Your task to perform on an android device: turn on data saver in the chrome app Image 0: 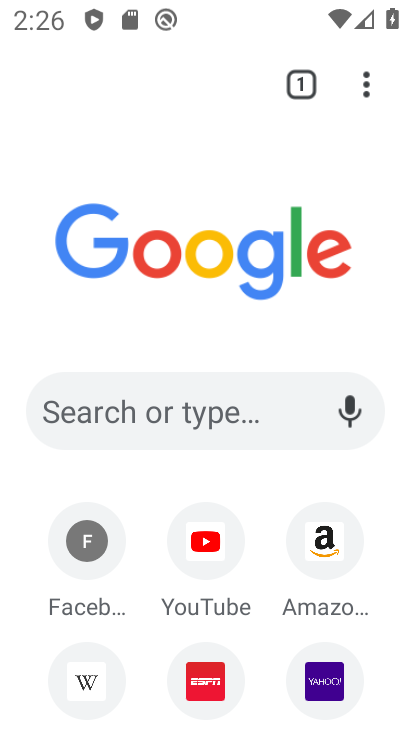
Step 0: click (371, 88)
Your task to perform on an android device: turn on data saver in the chrome app Image 1: 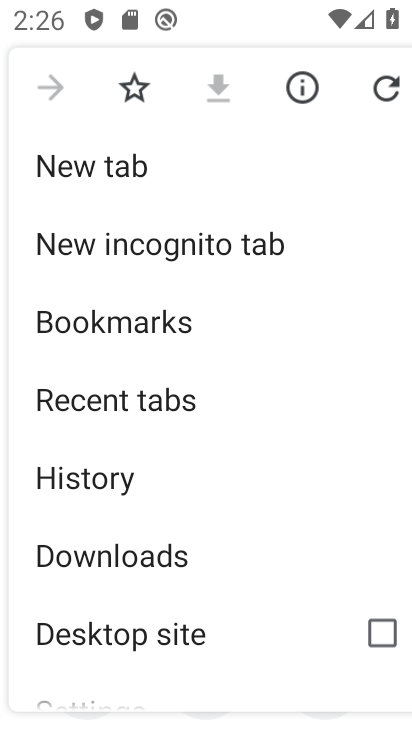
Step 1: drag from (265, 498) to (287, 47)
Your task to perform on an android device: turn on data saver in the chrome app Image 2: 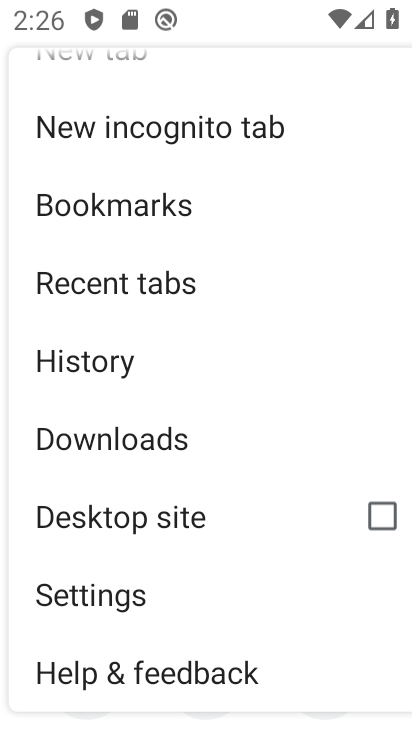
Step 2: click (187, 559)
Your task to perform on an android device: turn on data saver in the chrome app Image 3: 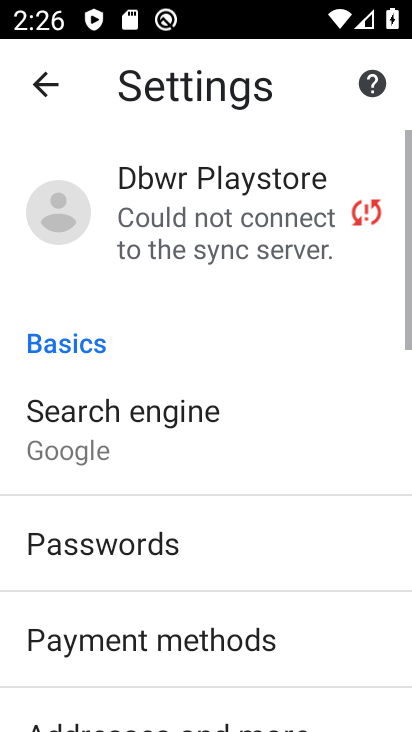
Step 3: drag from (187, 562) to (219, 140)
Your task to perform on an android device: turn on data saver in the chrome app Image 4: 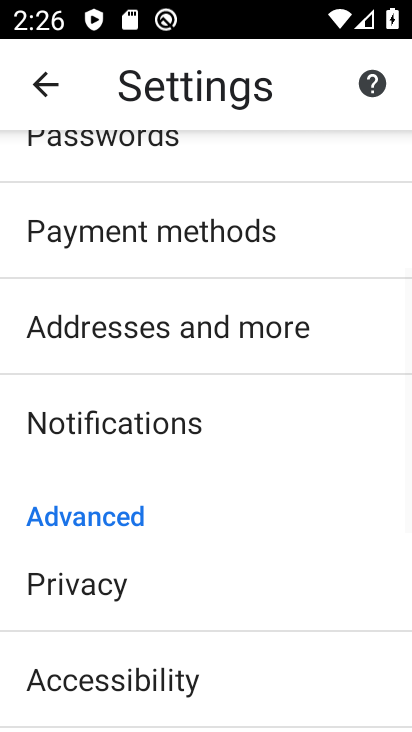
Step 4: drag from (230, 617) to (227, 222)
Your task to perform on an android device: turn on data saver in the chrome app Image 5: 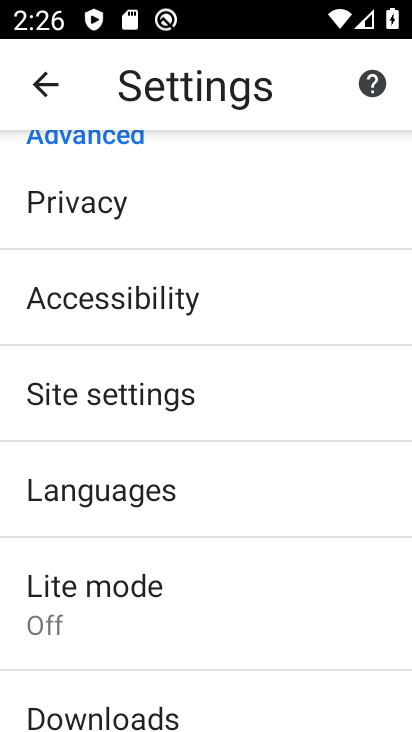
Step 5: drag from (243, 602) to (248, 263)
Your task to perform on an android device: turn on data saver in the chrome app Image 6: 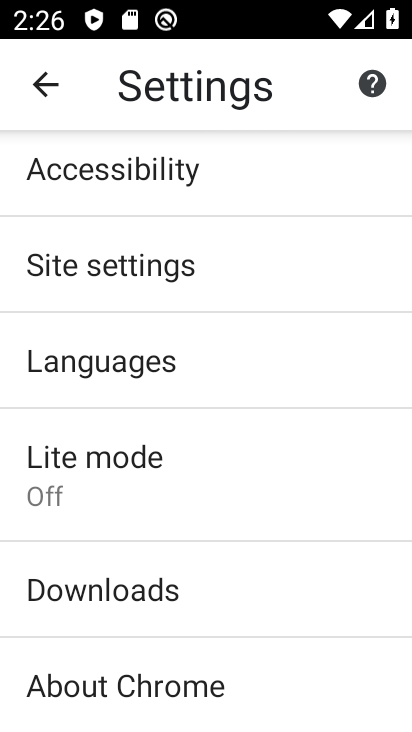
Step 6: click (189, 467)
Your task to perform on an android device: turn on data saver in the chrome app Image 7: 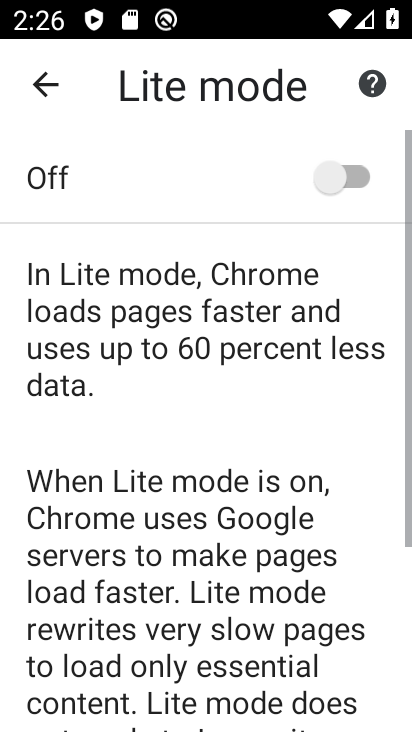
Step 7: click (371, 182)
Your task to perform on an android device: turn on data saver in the chrome app Image 8: 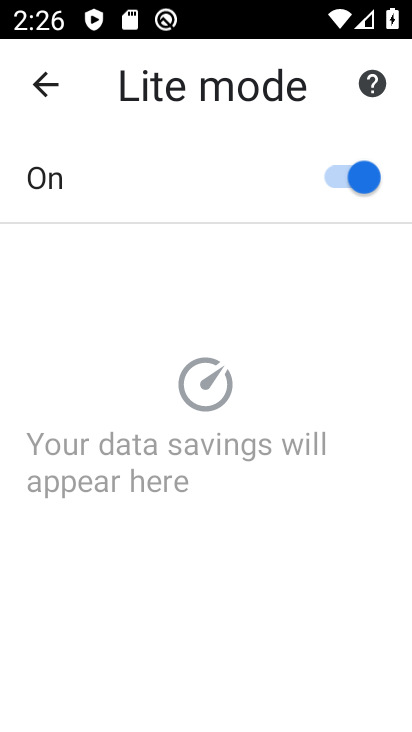
Step 8: task complete